Your task to perform on an android device: Go to accessibility settings Image 0: 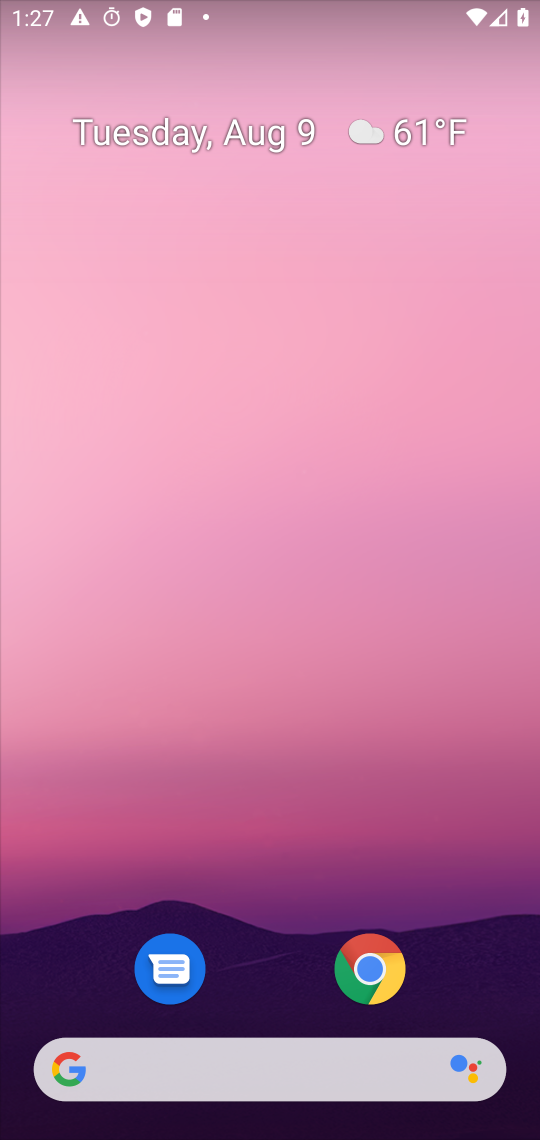
Step 0: drag from (275, 1055) to (140, 419)
Your task to perform on an android device: Go to accessibility settings Image 1: 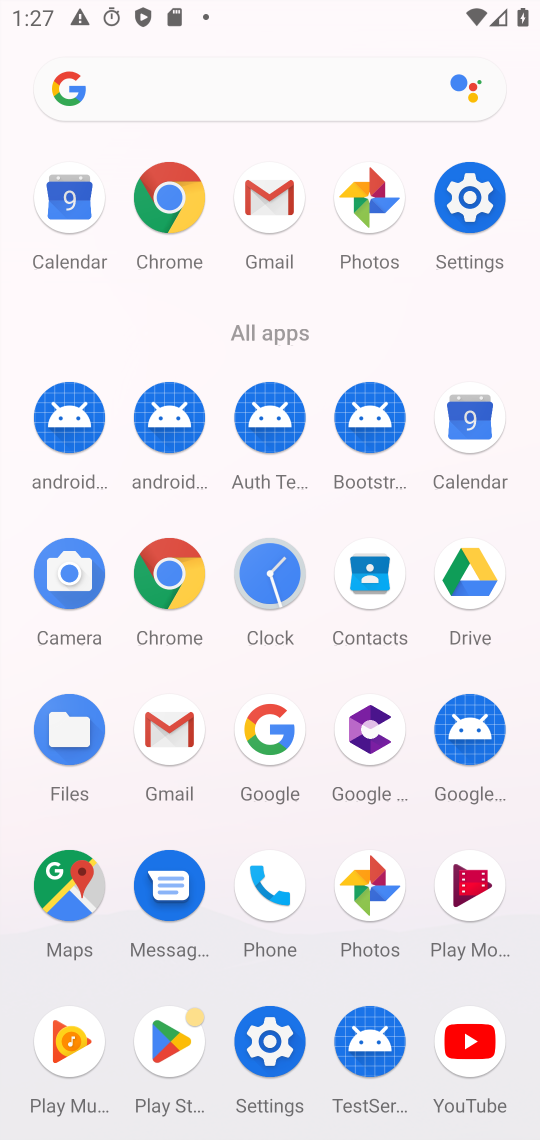
Step 1: click (457, 215)
Your task to perform on an android device: Go to accessibility settings Image 2: 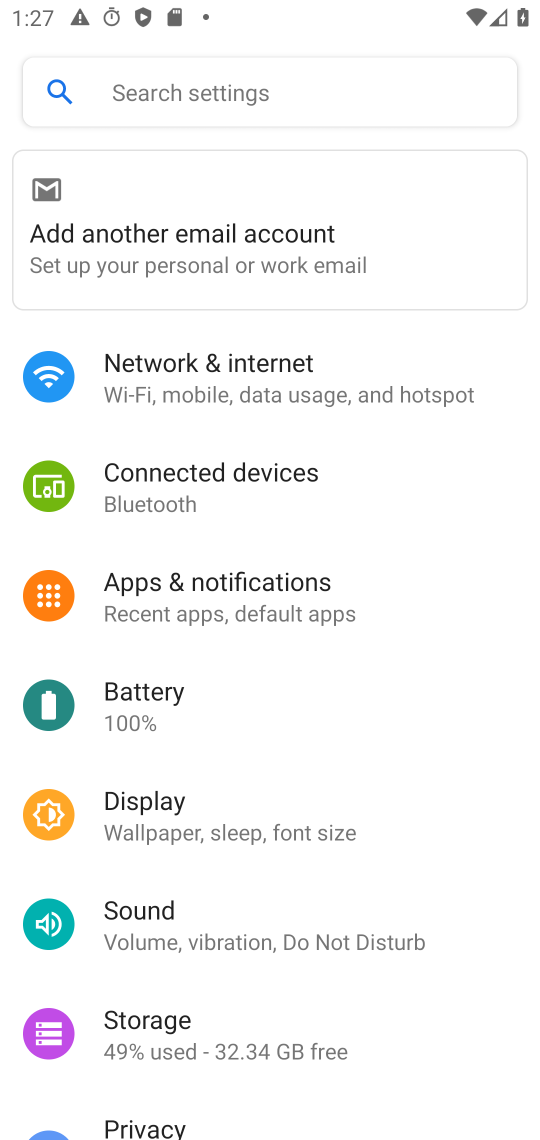
Step 2: click (241, 108)
Your task to perform on an android device: Go to accessibility settings Image 3: 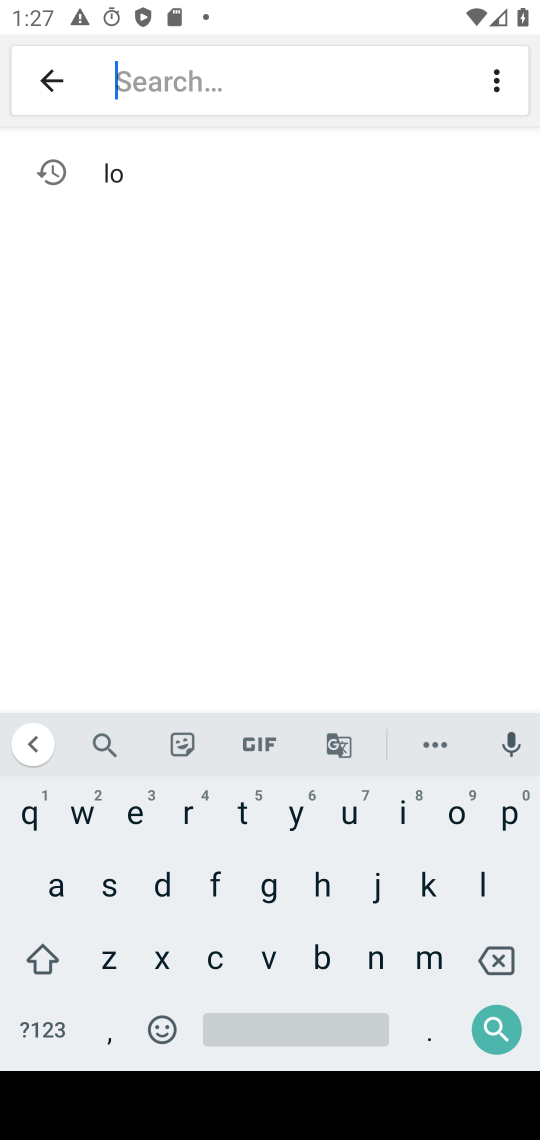
Step 3: click (48, 888)
Your task to perform on an android device: Go to accessibility settings Image 4: 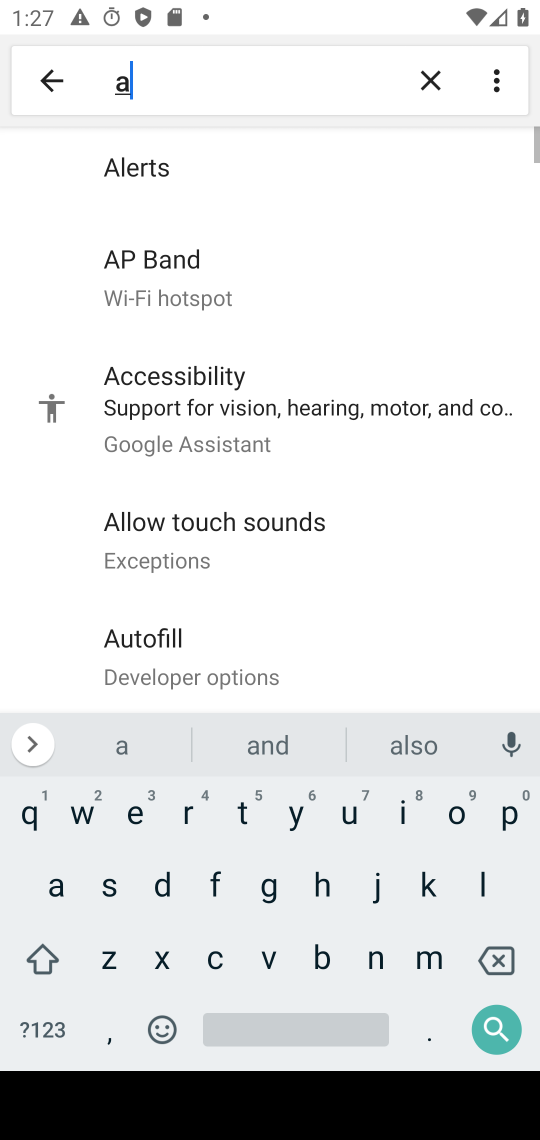
Step 4: click (210, 956)
Your task to perform on an android device: Go to accessibility settings Image 5: 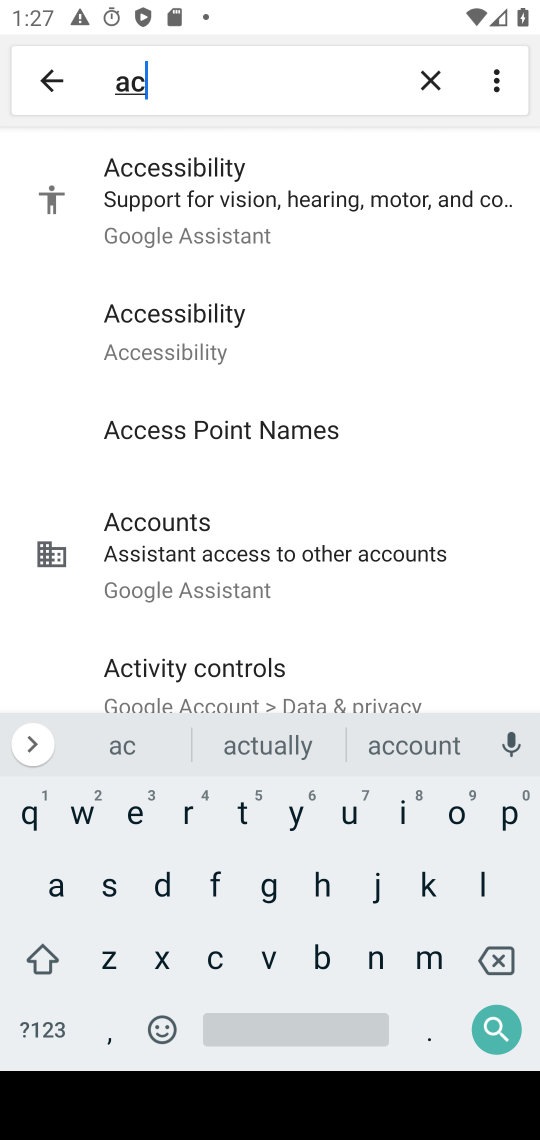
Step 5: click (220, 179)
Your task to perform on an android device: Go to accessibility settings Image 6: 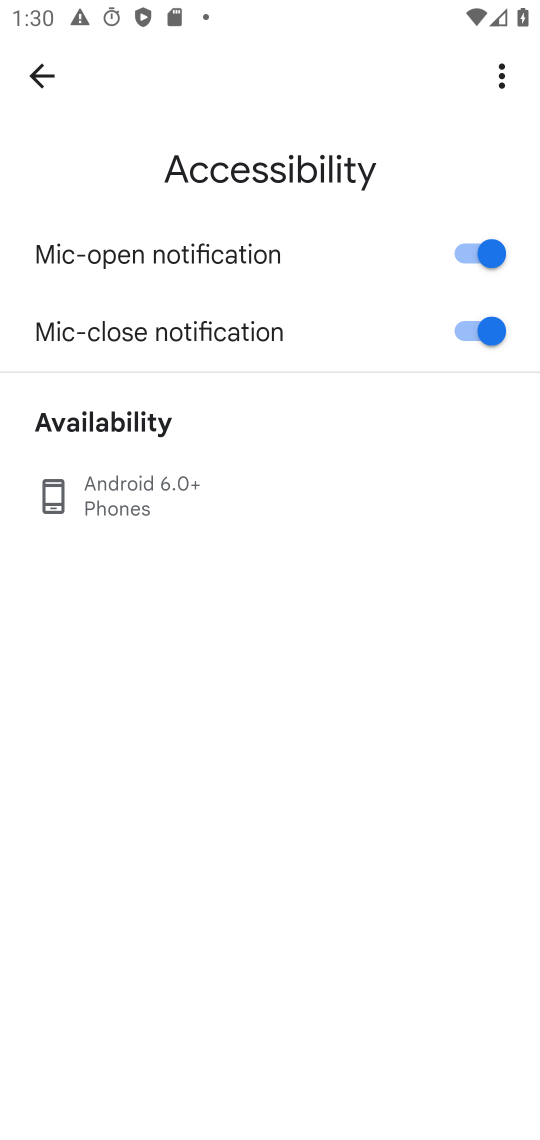
Step 6: task complete